Your task to perform on an android device: snooze an email in the gmail app Image 0: 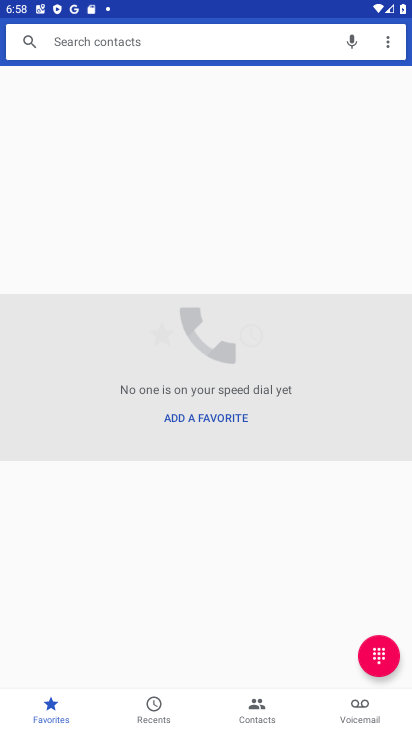
Step 0: press home button
Your task to perform on an android device: snooze an email in the gmail app Image 1: 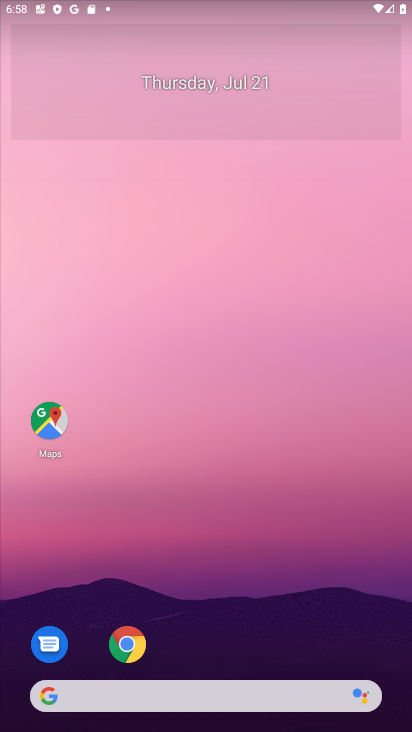
Step 1: drag from (199, 542) to (239, 221)
Your task to perform on an android device: snooze an email in the gmail app Image 2: 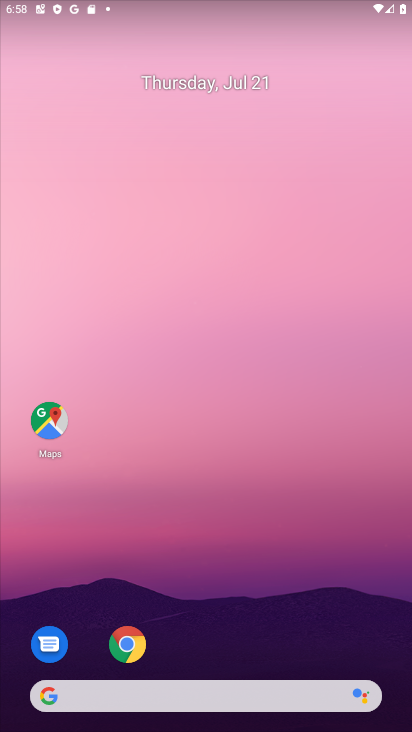
Step 2: drag from (279, 520) to (279, 148)
Your task to perform on an android device: snooze an email in the gmail app Image 3: 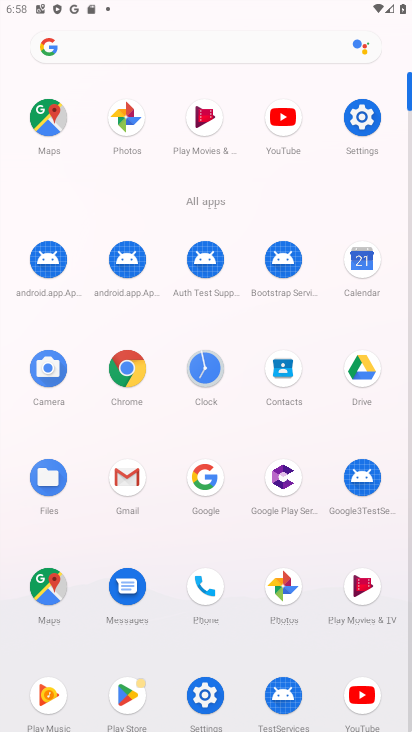
Step 3: click (123, 479)
Your task to perform on an android device: snooze an email in the gmail app Image 4: 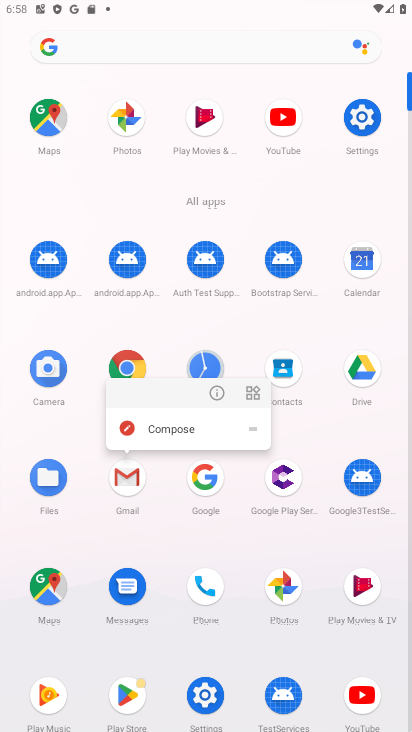
Step 4: click (126, 364)
Your task to perform on an android device: snooze an email in the gmail app Image 5: 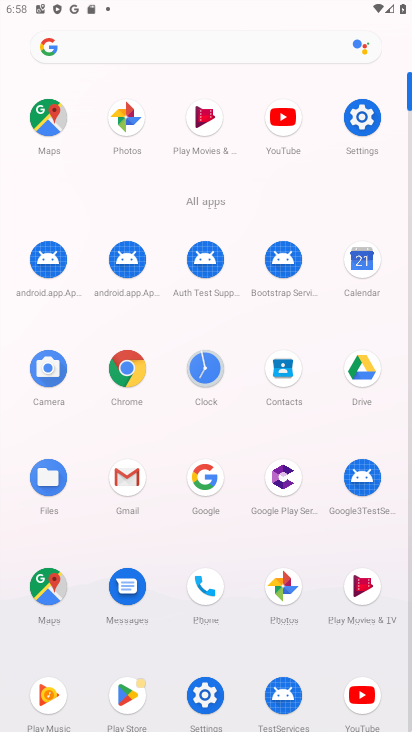
Step 5: click (122, 476)
Your task to perform on an android device: snooze an email in the gmail app Image 6: 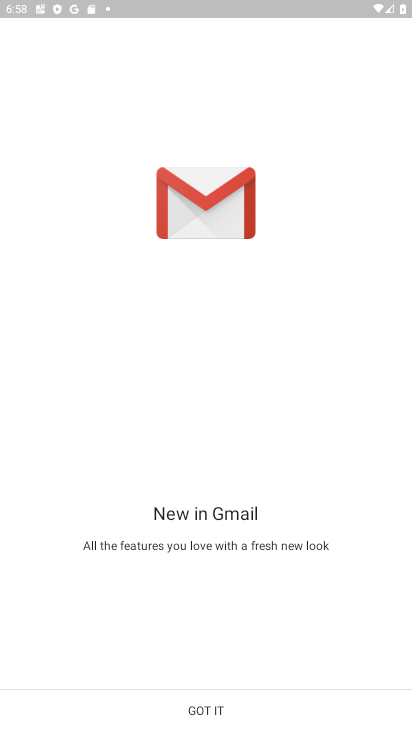
Step 6: click (199, 706)
Your task to perform on an android device: snooze an email in the gmail app Image 7: 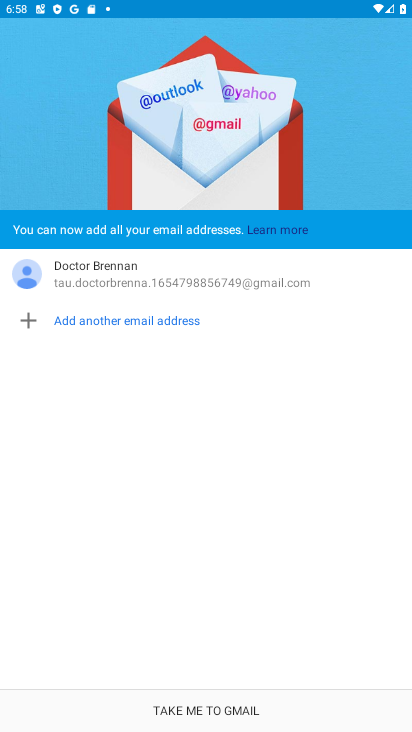
Step 7: click (199, 706)
Your task to perform on an android device: snooze an email in the gmail app Image 8: 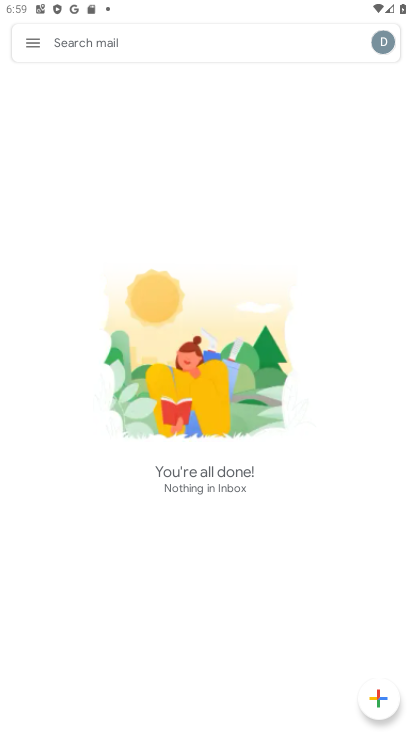
Step 8: click (34, 39)
Your task to perform on an android device: snooze an email in the gmail app Image 9: 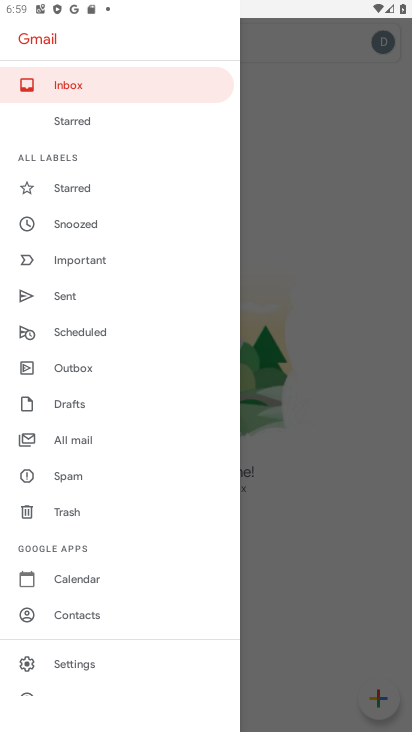
Step 9: click (74, 223)
Your task to perform on an android device: snooze an email in the gmail app Image 10: 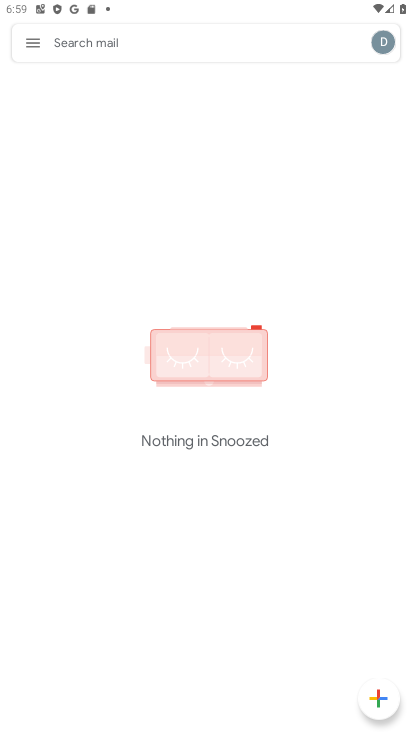
Step 10: task complete